Your task to perform on an android device: clear all cookies in the chrome app Image 0: 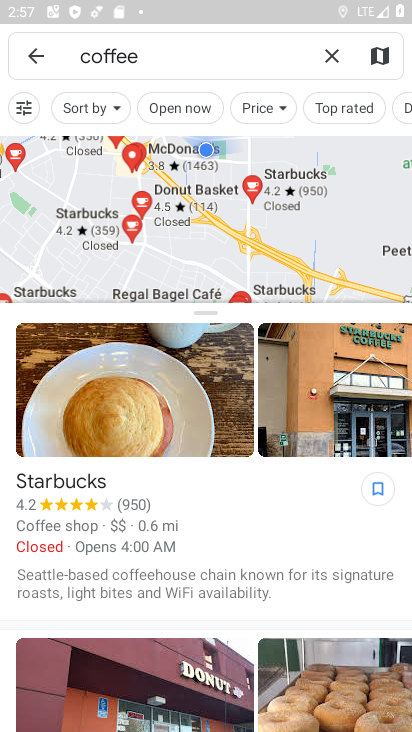
Step 0: press home button
Your task to perform on an android device: clear all cookies in the chrome app Image 1: 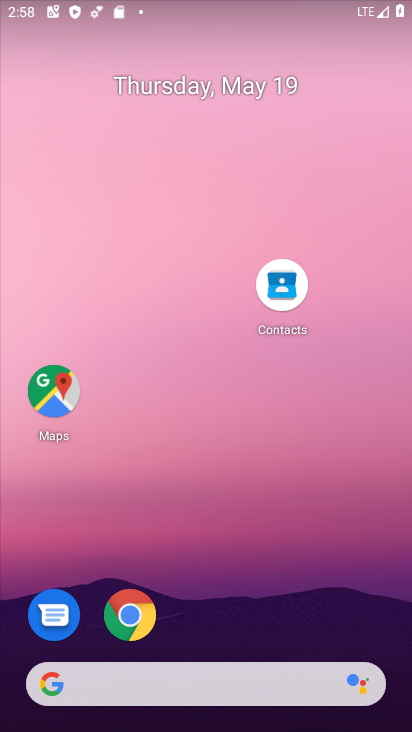
Step 1: drag from (228, 643) to (246, 238)
Your task to perform on an android device: clear all cookies in the chrome app Image 2: 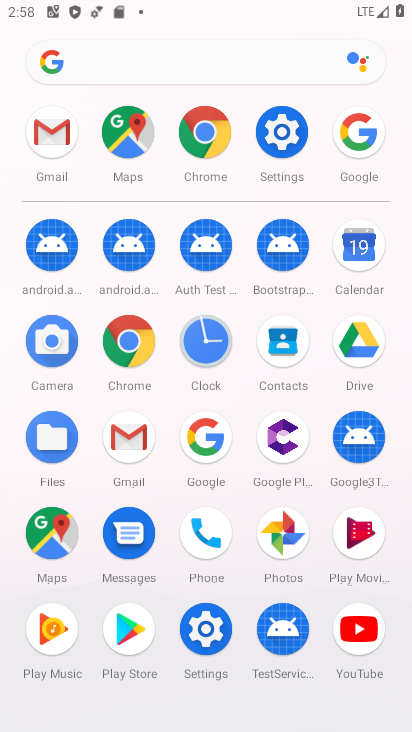
Step 2: click (217, 160)
Your task to perform on an android device: clear all cookies in the chrome app Image 3: 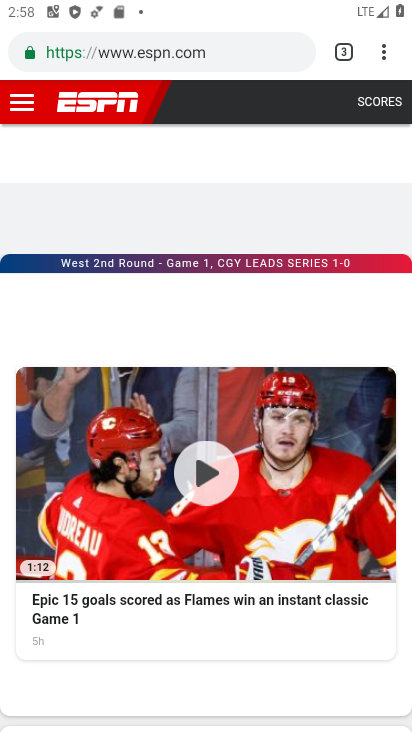
Step 3: click (394, 61)
Your task to perform on an android device: clear all cookies in the chrome app Image 4: 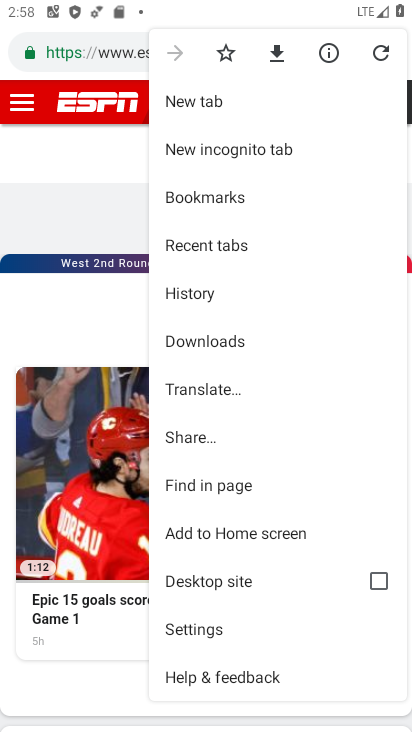
Step 4: click (232, 285)
Your task to perform on an android device: clear all cookies in the chrome app Image 5: 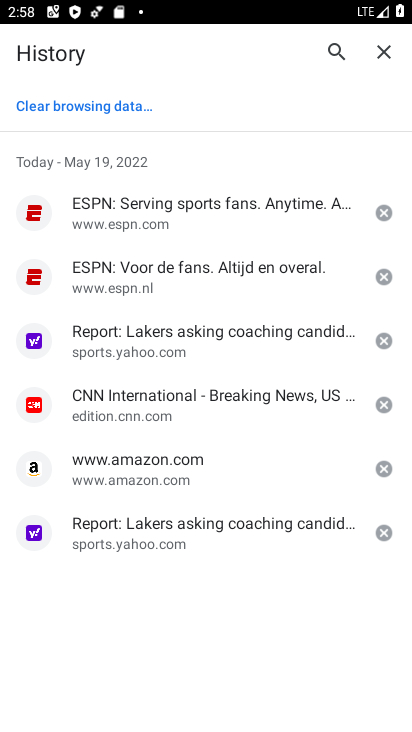
Step 5: click (93, 113)
Your task to perform on an android device: clear all cookies in the chrome app Image 6: 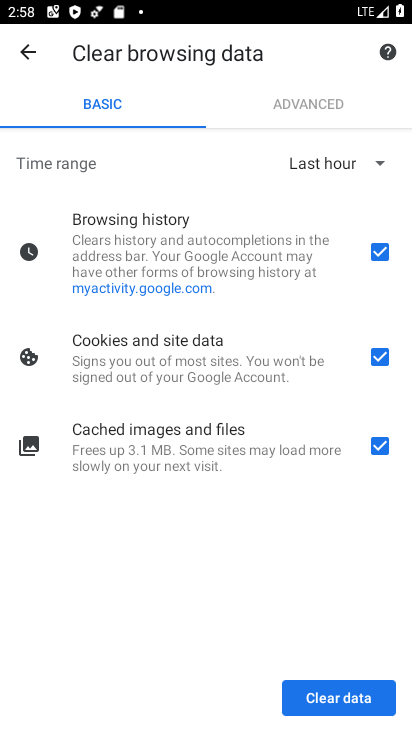
Step 6: click (385, 255)
Your task to perform on an android device: clear all cookies in the chrome app Image 7: 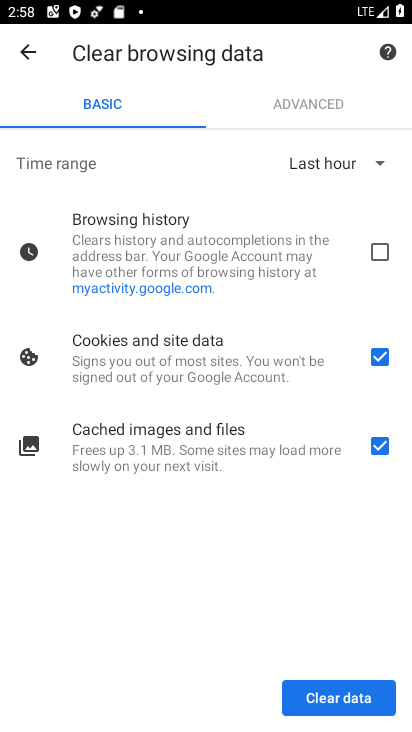
Step 7: click (330, 688)
Your task to perform on an android device: clear all cookies in the chrome app Image 8: 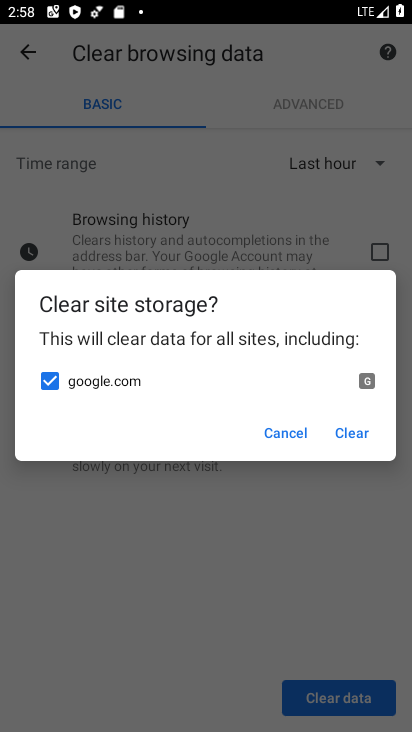
Step 8: click (361, 426)
Your task to perform on an android device: clear all cookies in the chrome app Image 9: 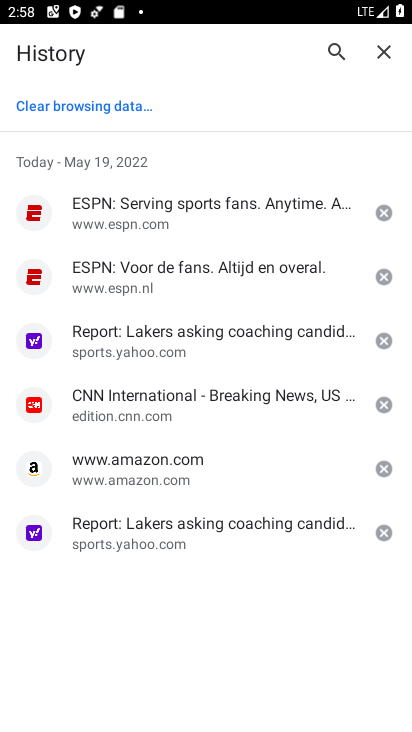
Step 9: task complete